Your task to perform on an android device: remove spam from my inbox in the gmail app Image 0: 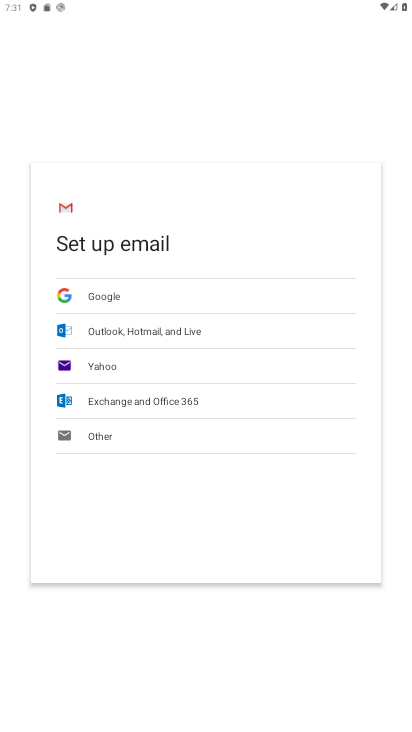
Step 0: drag from (179, 535) to (274, 161)
Your task to perform on an android device: remove spam from my inbox in the gmail app Image 1: 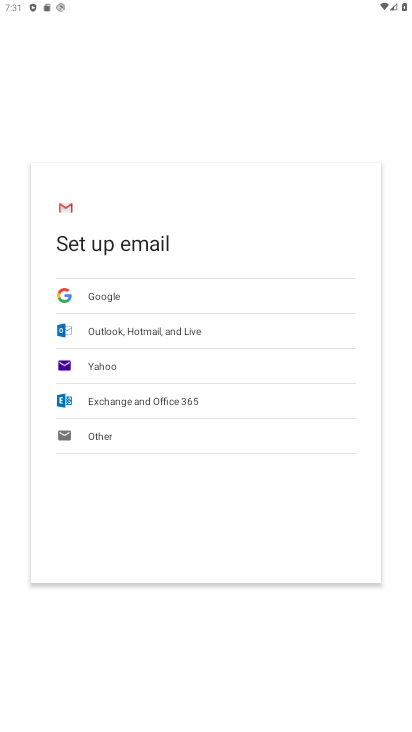
Step 1: press home button
Your task to perform on an android device: remove spam from my inbox in the gmail app Image 2: 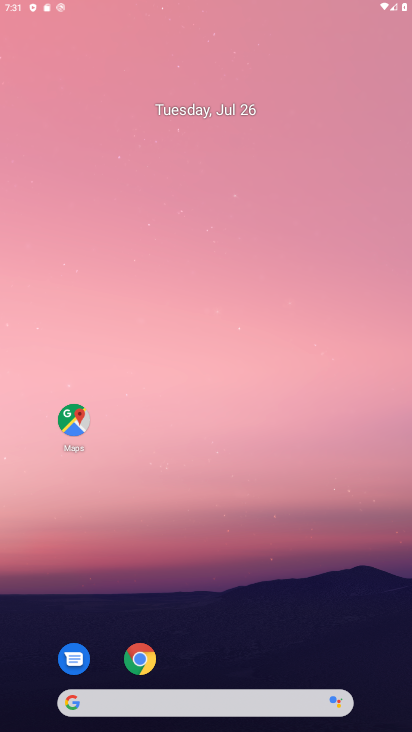
Step 2: drag from (142, 678) to (226, 163)
Your task to perform on an android device: remove spam from my inbox in the gmail app Image 3: 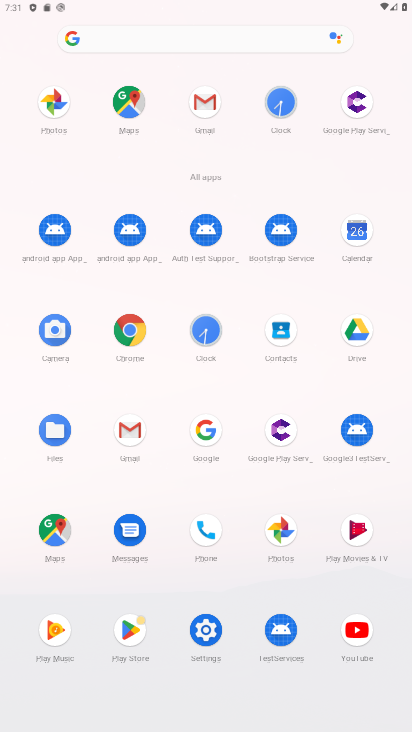
Step 3: click (123, 440)
Your task to perform on an android device: remove spam from my inbox in the gmail app Image 4: 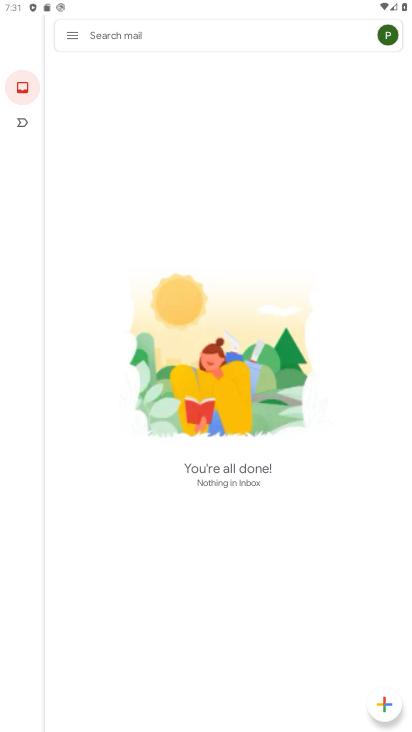
Step 4: click (81, 34)
Your task to perform on an android device: remove spam from my inbox in the gmail app Image 5: 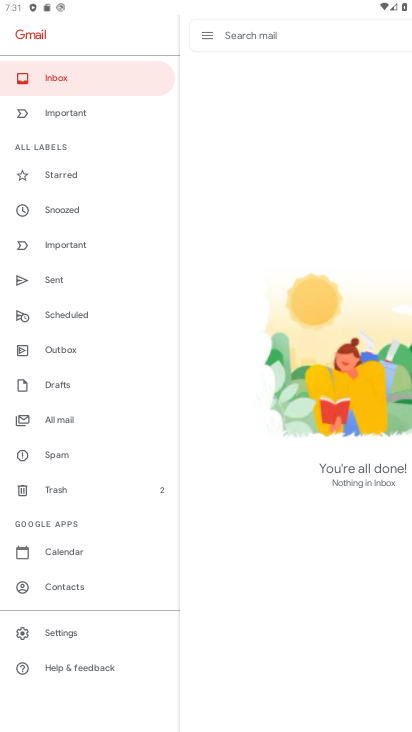
Step 5: click (91, 88)
Your task to perform on an android device: remove spam from my inbox in the gmail app Image 6: 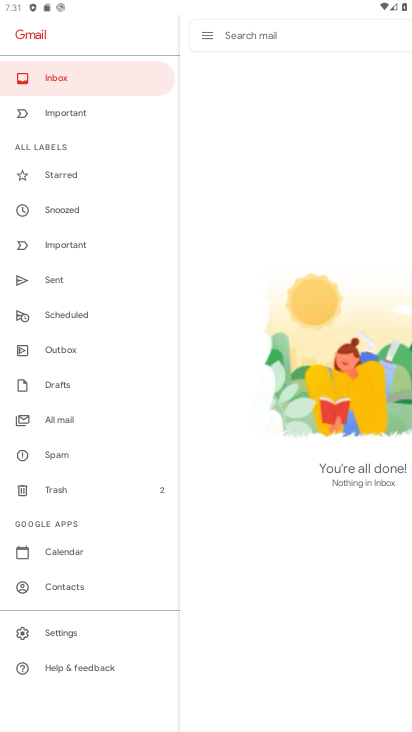
Step 6: task complete